Your task to perform on an android device: manage bookmarks in the chrome app Image 0: 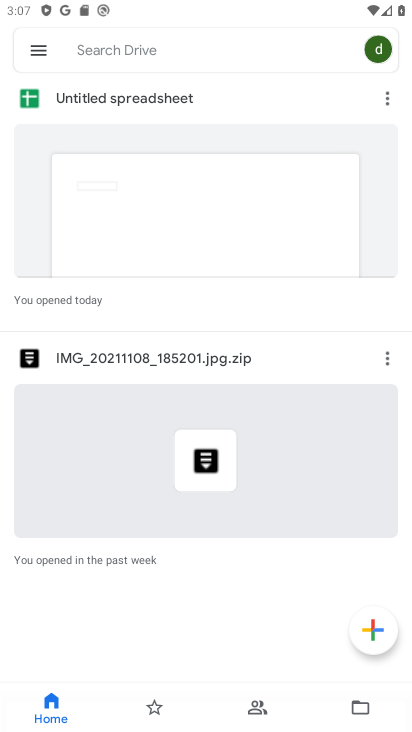
Step 0: press back button
Your task to perform on an android device: manage bookmarks in the chrome app Image 1: 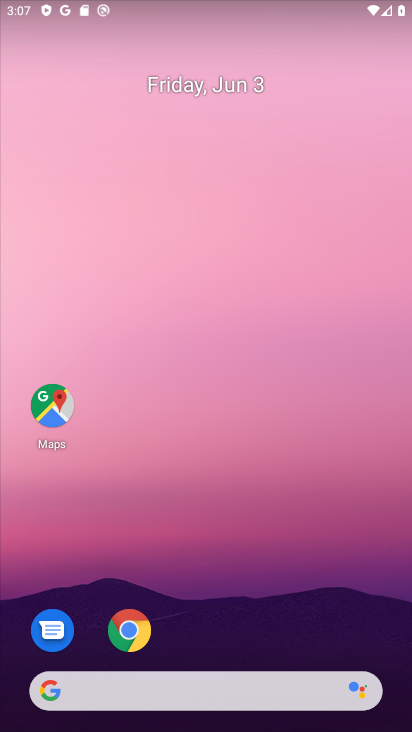
Step 1: drag from (237, 708) to (243, 101)
Your task to perform on an android device: manage bookmarks in the chrome app Image 2: 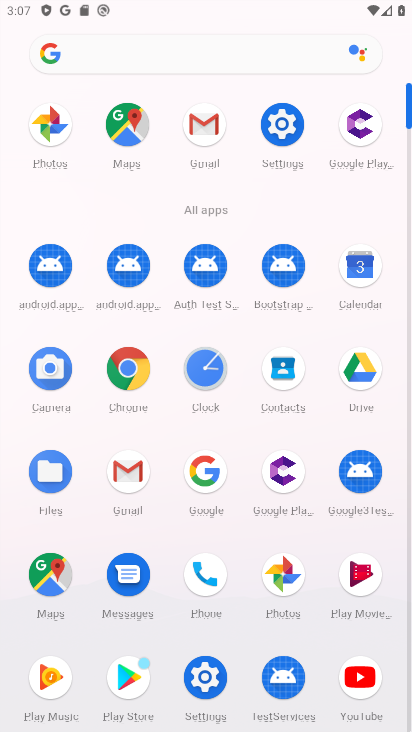
Step 2: click (122, 373)
Your task to perform on an android device: manage bookmarks in the chrome app Image 3: 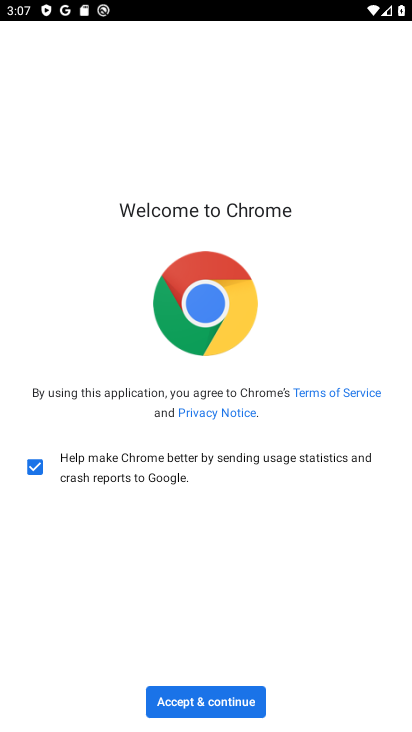
Step 3: click (214, 703)
Your task to perform on an android device: manage bookmarks in the chrome app Image 4: 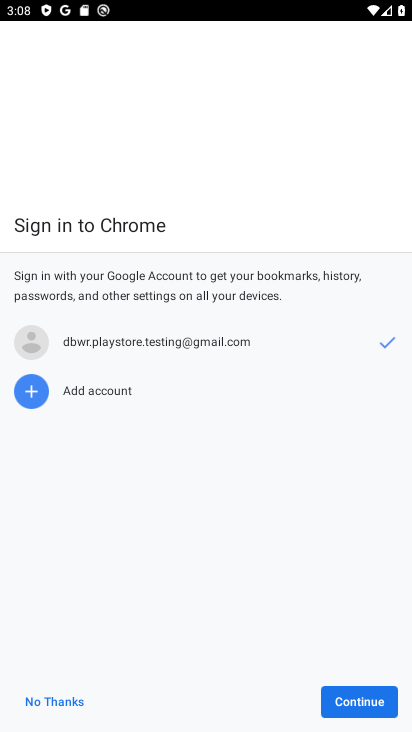
Step 4: click (382, 697)
Your task to perform on an android device: manage bookmarks in the chrome app Image 5: 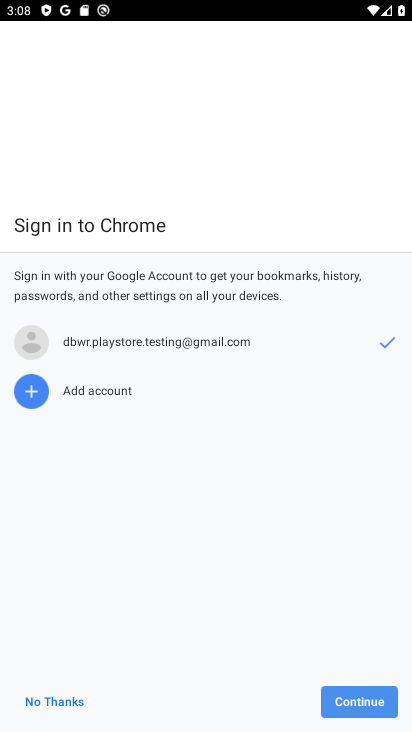
Step 5: click (382, 697)
Your task to perform on an android device: manage bookmarks in the chrome app Image 6: 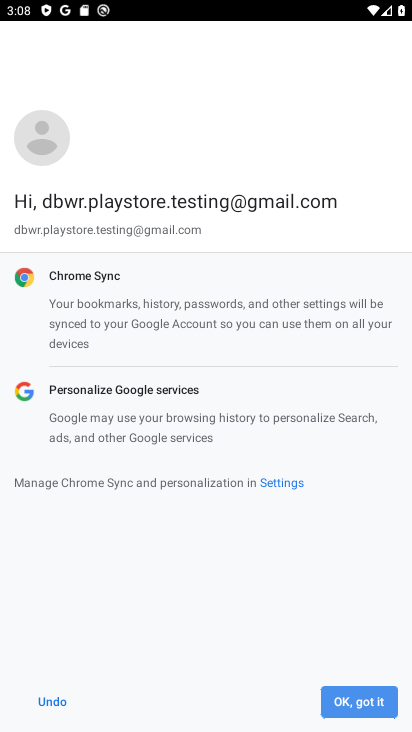
Step 6: click (381, 698)
Your task to perform on an android device: manage bookmarks in the chrome app Image 7: 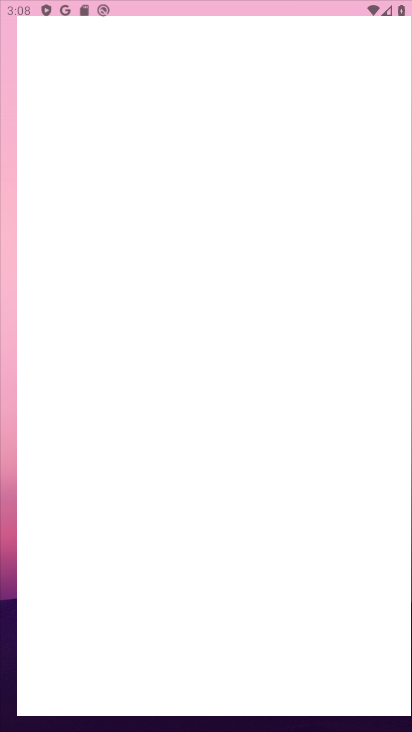
Step 7: click (347, 728)
Your task to perform on an android device: manage bookmarks in the chrome app Image 8: 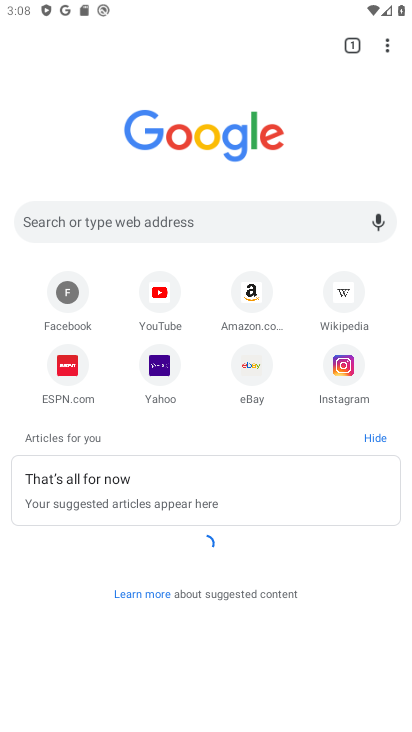
Step 8: click (390, 51)
Your task to perform on an android device: manage bookmarks in the chrome app Image 9: 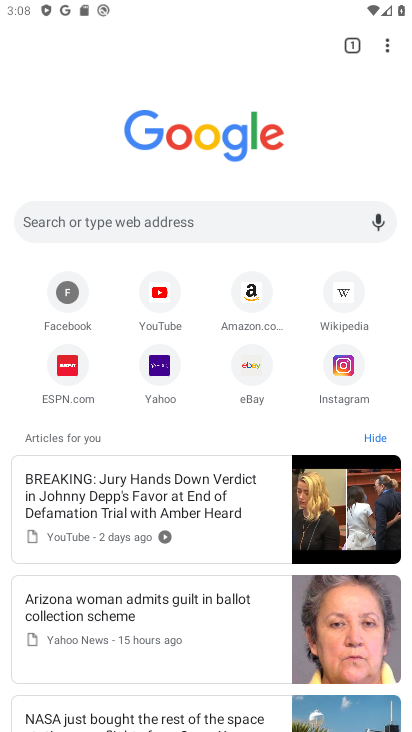
Step 9: drag from (384, 48) to (218, 167)
Your task to perform on an android device: manage bookmarks in the chrome app Image 10: 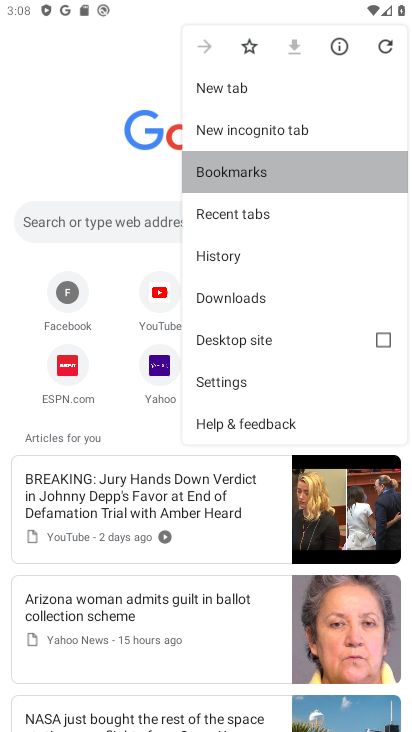
Step 10: click (218, 167)
Your task to perform on an android device: manage bookmarks in the chrome app Image 11: 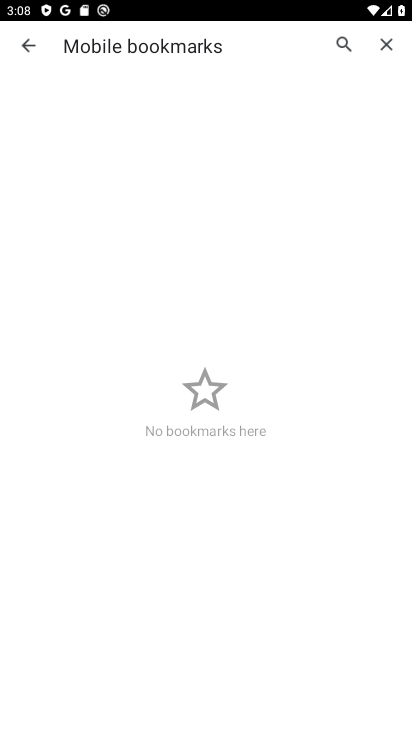
Step 11: task complete